Your task to perform on an android device: Search for the best rated 4K TV on Best Buy. Image 0: 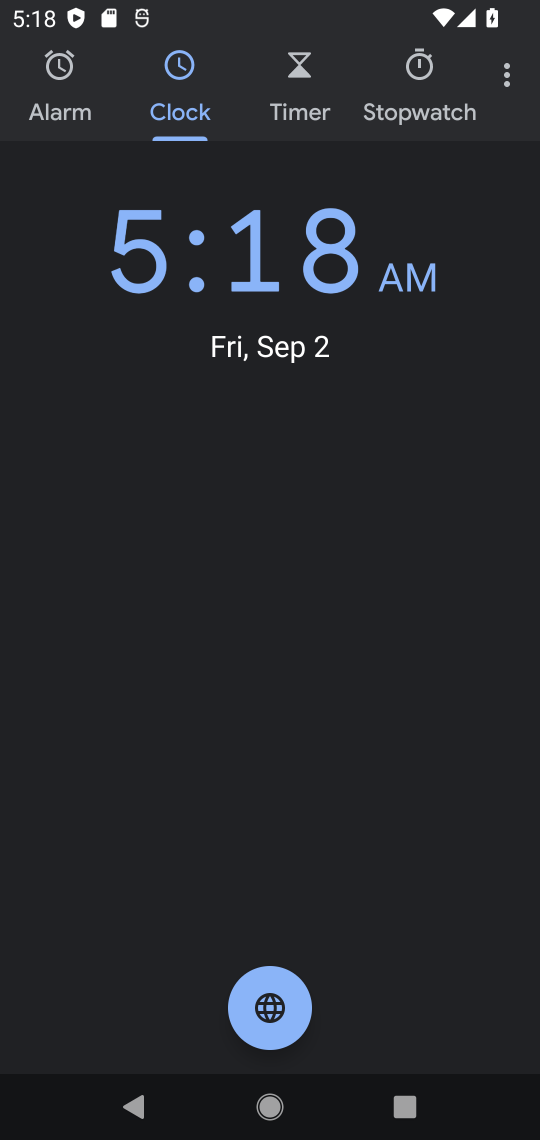
Step 0: press home button
Your task to perform on an android device: Search for the best rated 4K TV on Best Buy. Image 1: 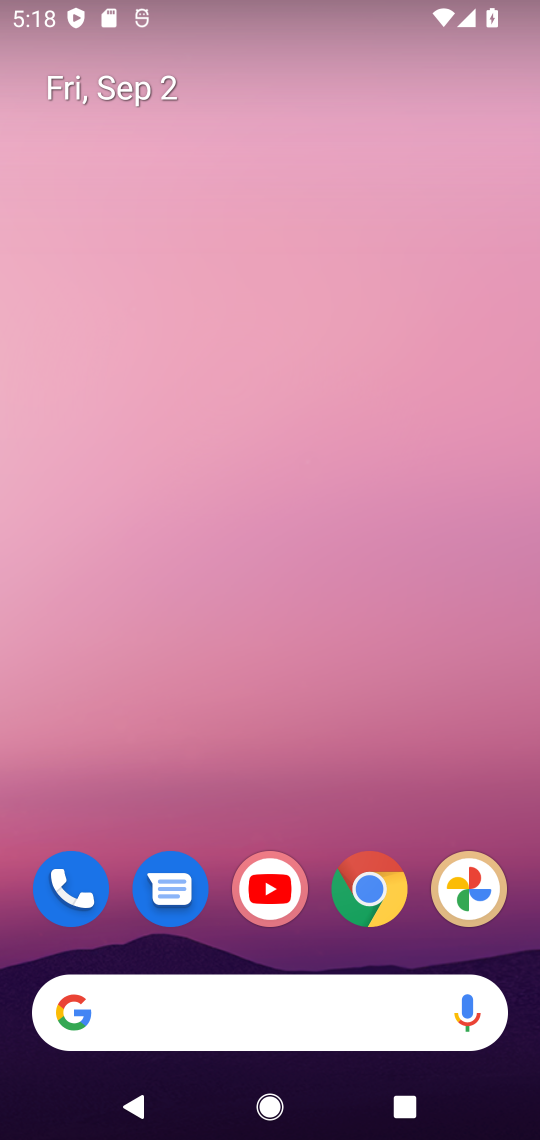
Step 1: click (325, 989)
Your task to perform on an android device: Search for the best rated 4K TV on Best Buy. Image 2: 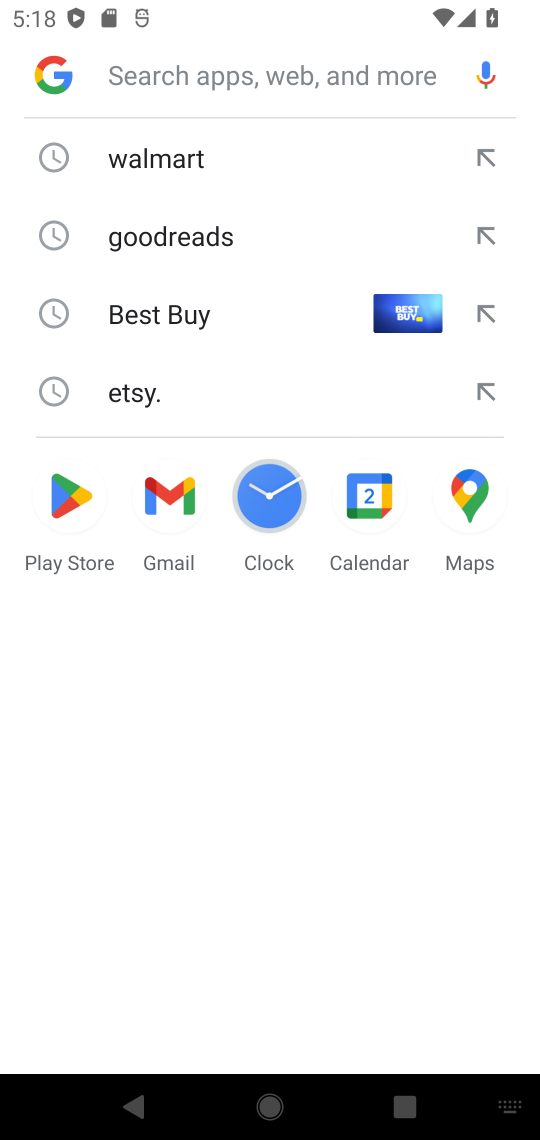
Step 2: click (188, 298)
Your task to perform on an android device: Search for the best rated 4K TV on Best Buy. Image 3: 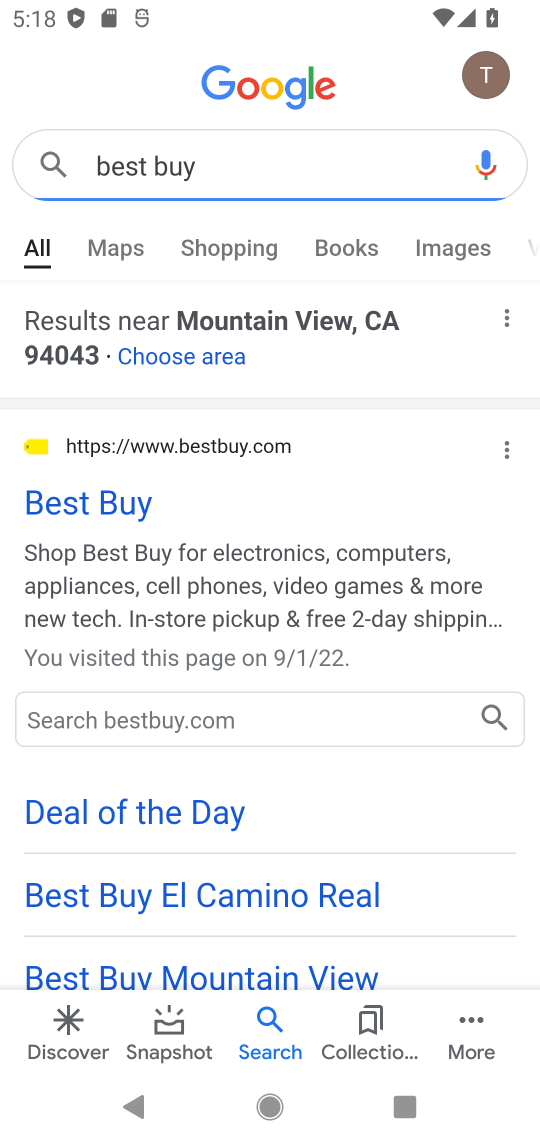
Step 3: click (137, 514)
Your task to perform on an android device: Search for the best rated 4K TV on Best Buy. Image 4: 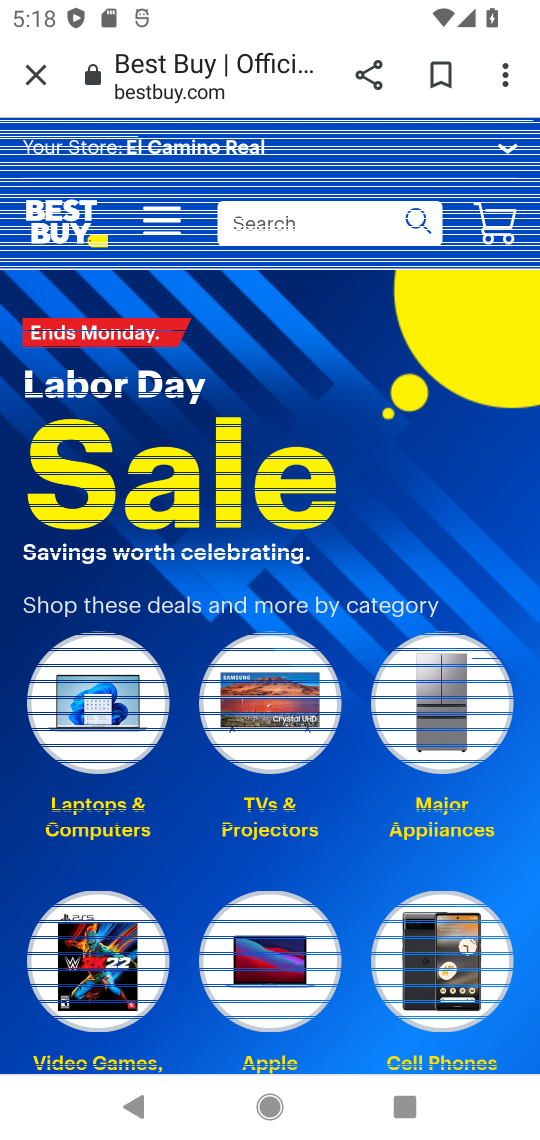
Step 4: click (312, 208)
Your task to perform on an android device: Search for the best rated 4K TV on Best Buy. Image 5: 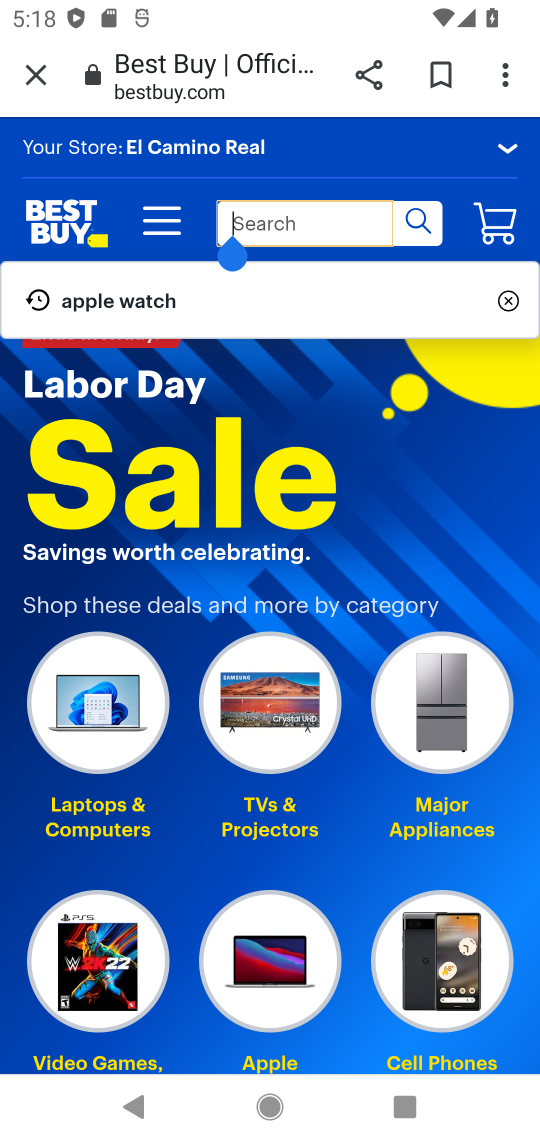
Step 5: type "est rated 4K TV"
Your task to perform on an android device: Search for the best rated 4K TV on Best Buy. Image 6: 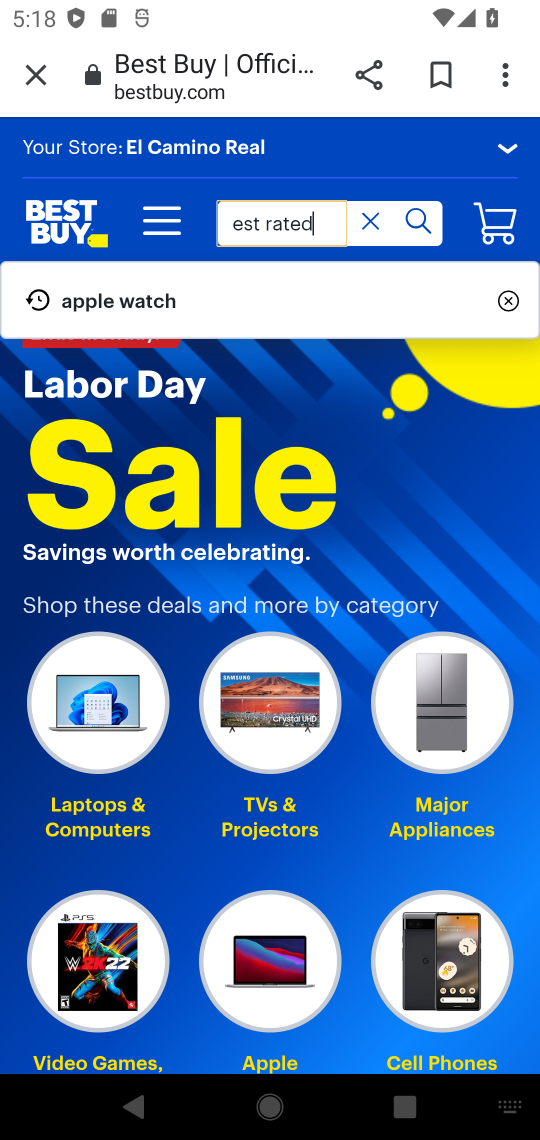
Step 6: type ""
Your task to perform on an android device: Search for the best rated 4K TV on Best Buy. Image 7: 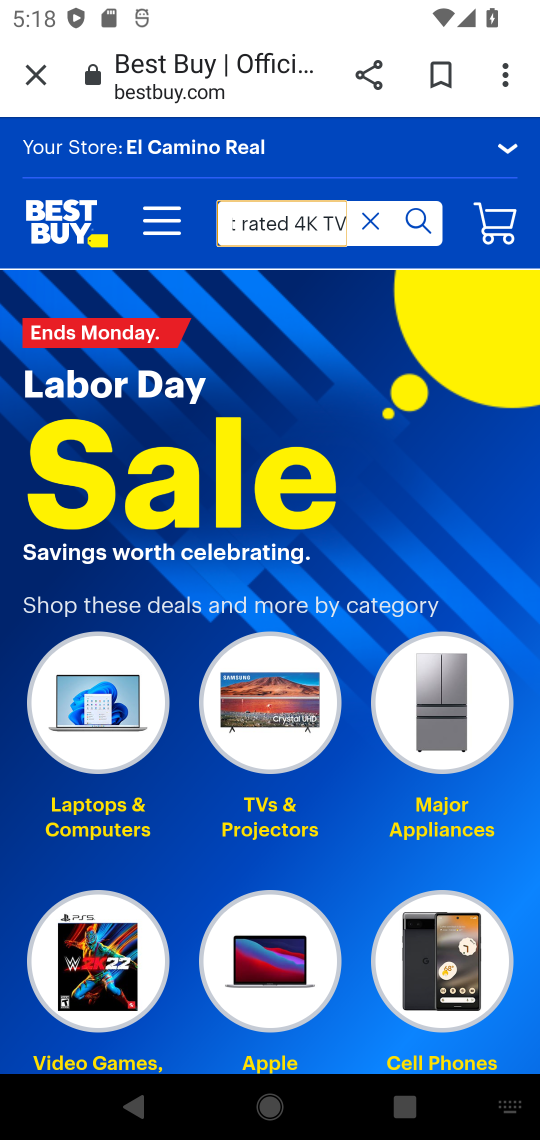
Step 7: click (411, 215)
Your task to perform on an android device: Search for the best rated 4K TV on Best Buy. Image 8: 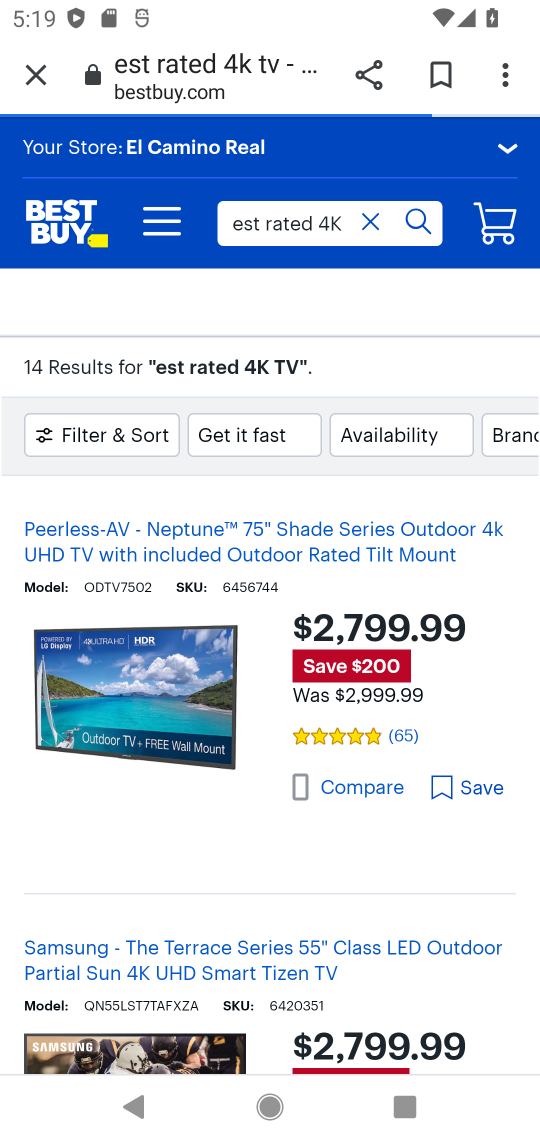
Step 8: drag from (418, 896) to (340, 425)
Your task to perform on an android device: Search for the best rated 4K TV on Best Buy. Image 9: 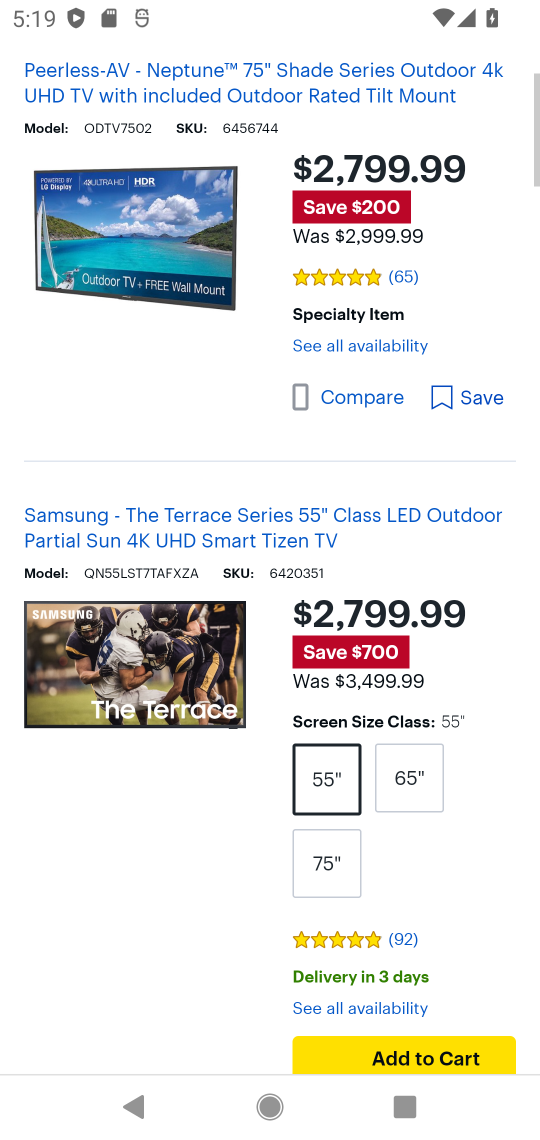
Step 9: drag from (316, 343) to (419, 357)
Your task to perform on an android device: Search for the best rated 4K TV on Best Buy. Image 10: 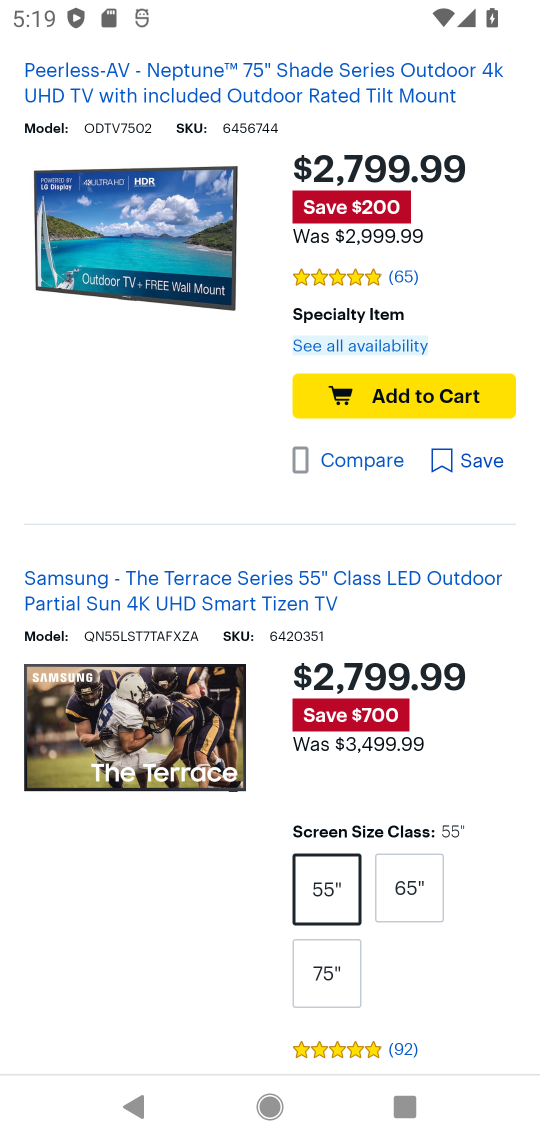
Step 10: drag from (446, 724) to (424, 439)
Your task to perform on an android device: Search for the best rated 4K TV on Best Buy. Image 11: 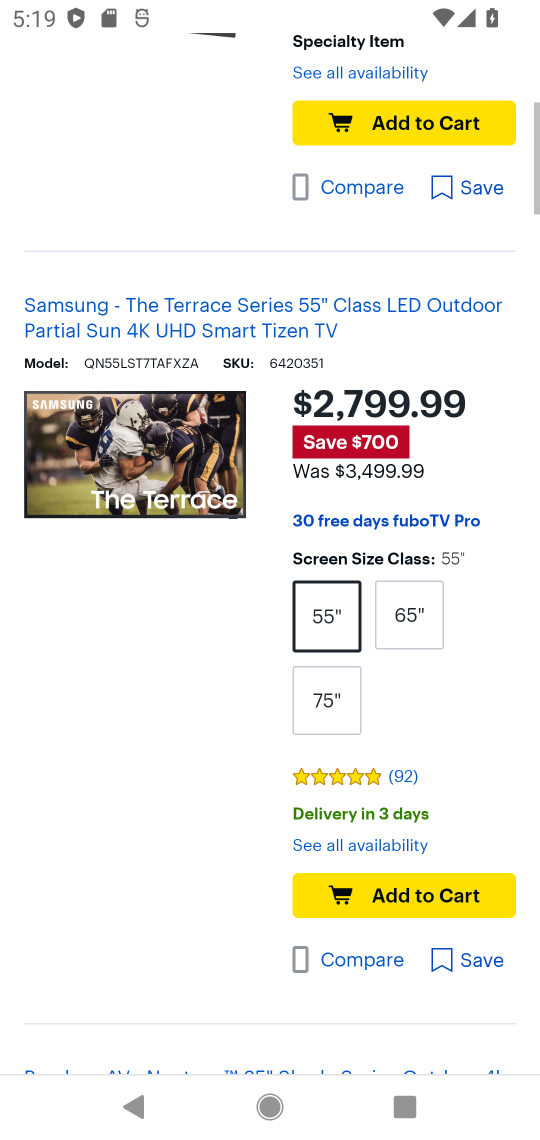
Step 11: drag from (435, 597) to (393, 216)
Your task to perform on an android device: Search for the best rated 4K TV on Best Buy. Image 12: 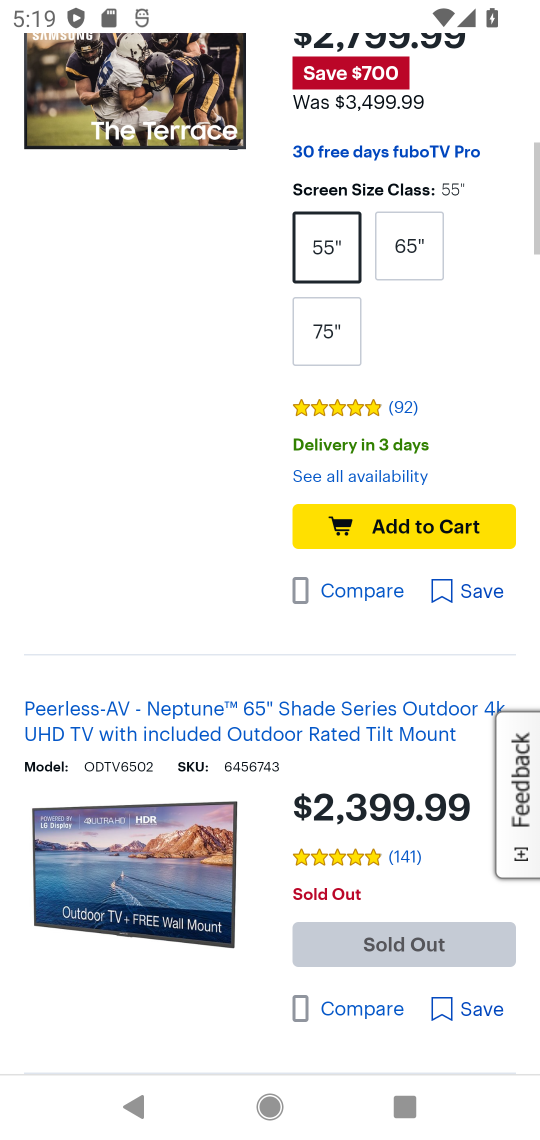
Step 12: drag from (440, 529) to (420, 247)
Your task to perform on an android device: Search for the best rated 4K TV on Best Buy. Image 13: 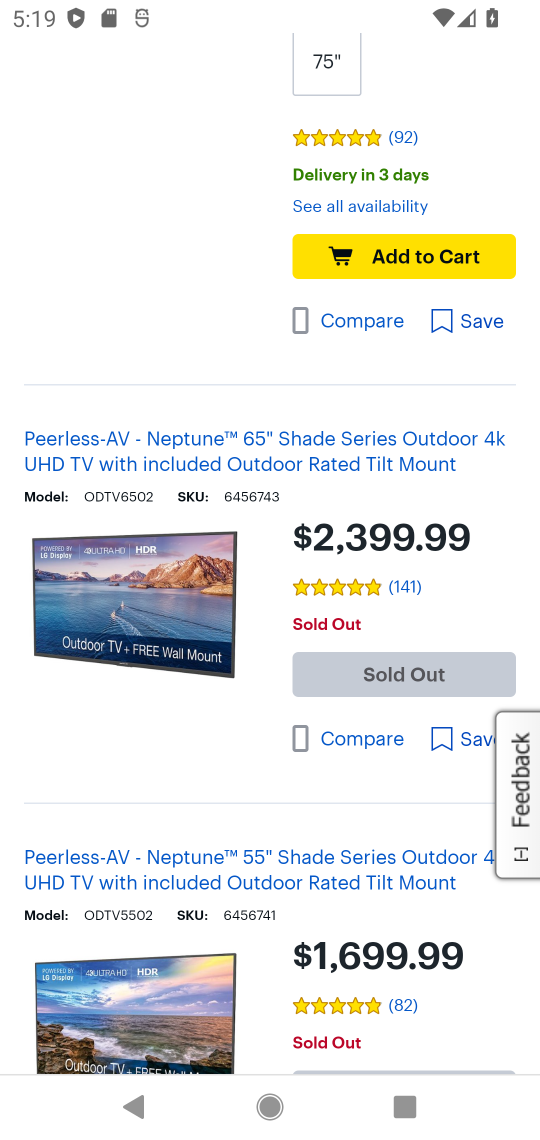
Step 13: drag from (425, 848) to (427, 328)
Your task to perform on an android device: Search for the best rated 4K TV on Best Buy. Image 14: 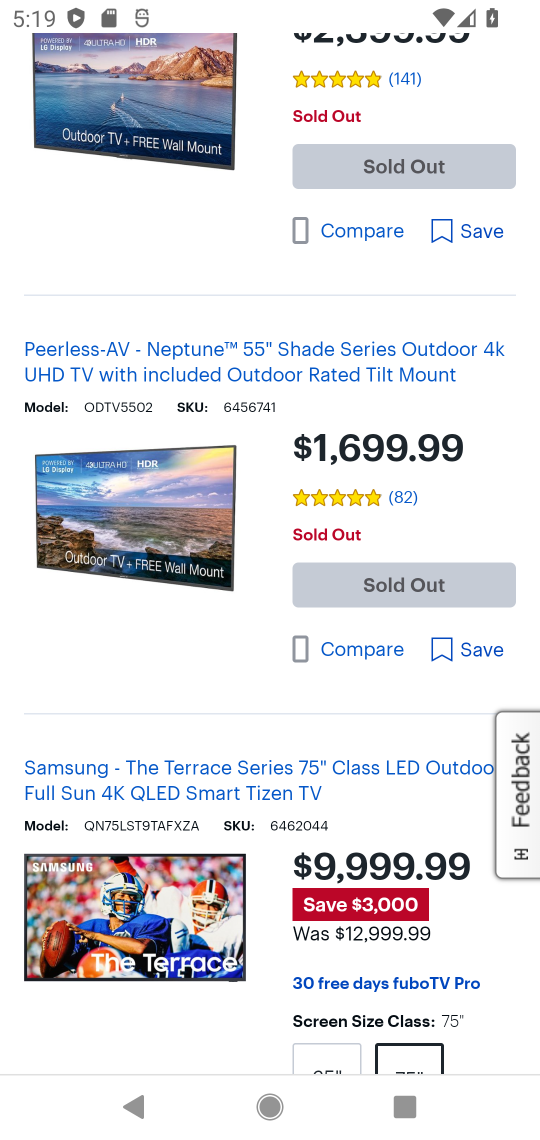
Step 14: drag from (393, 734) to (422, 273)
Your task to perform on an android device: Search for the best rated 4K TV on Best Buy. Image 15: 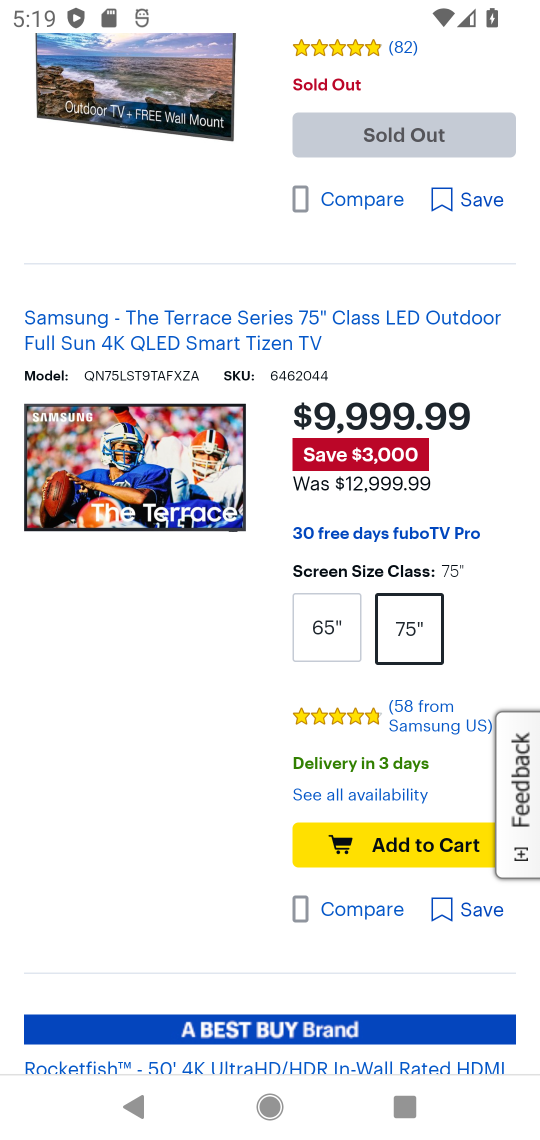
Step 15: click (178, 314)
Your task to perform on an android device: Search for the best rated 4K TV on Best Buy. Image 16: 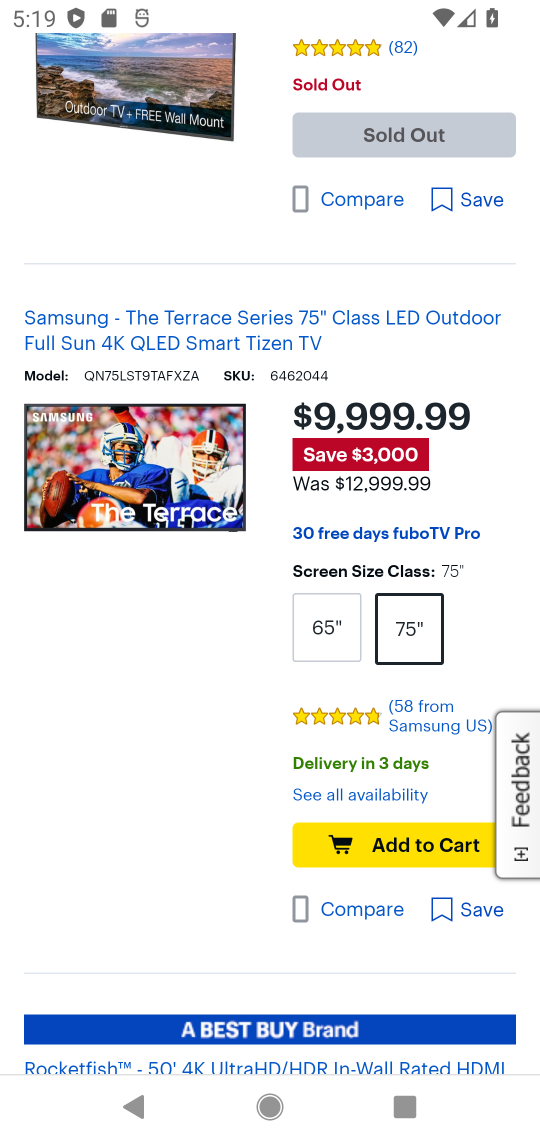
Step 16: task complete